Your task to perform on an android device: empty trash in the gmail app Image 0: 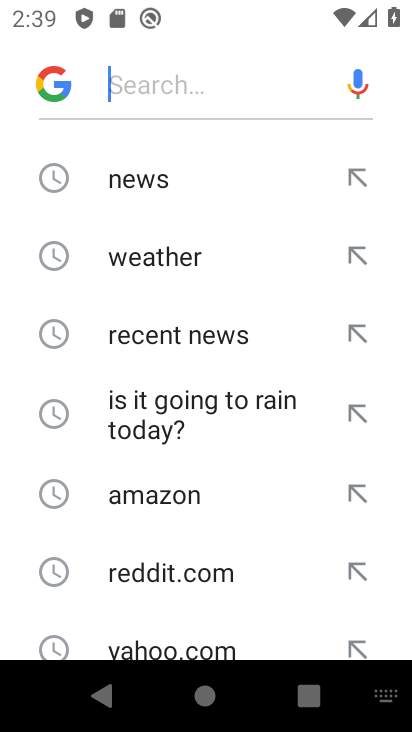
Step 0: press home button
Your task to perform on an android device: empty trash in the gmail app Image 1: 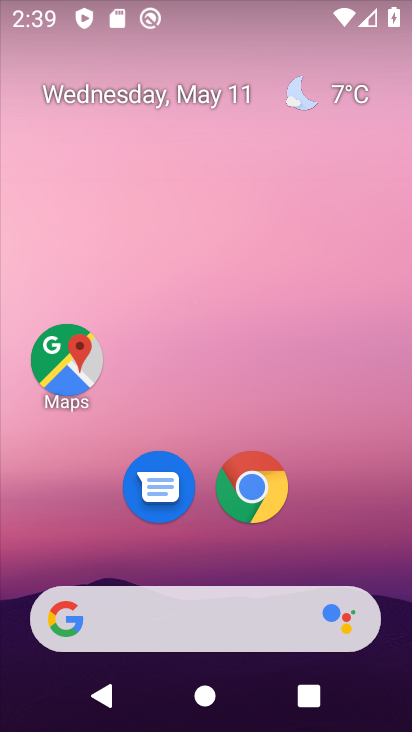
Step 1: drag from (275, 615) to (238, 74)
Your task to perform on an android device: empty trash in the gmail app Image 2: 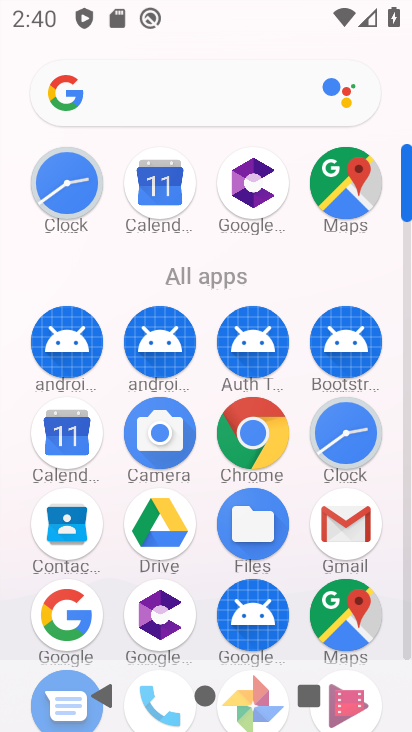
Step 2: click (349, 540)
Your task to perform on an android device: empty trash in the gmail app Image 3: 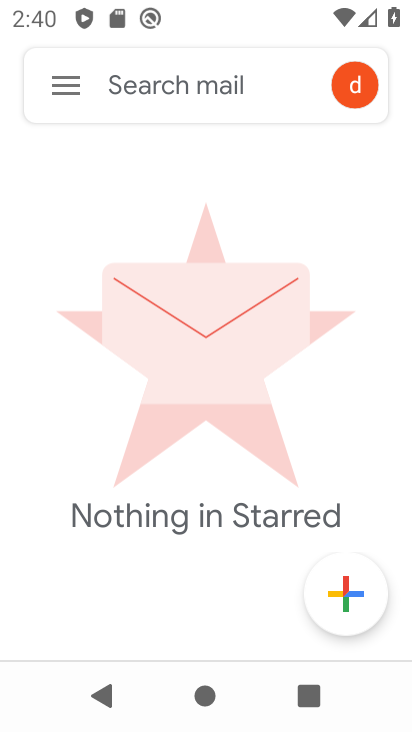
Step 3: click (74, 92)
Your task to perform on an android device: empty trash in the gmail app Image 4: 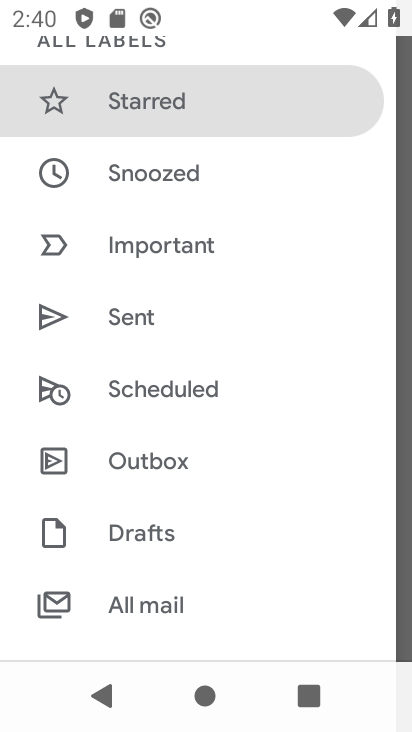
Step 4: drag from (169, 625) to (192, 249)
Your task to perform on an android device: empty trash in the gmail app Image 5: 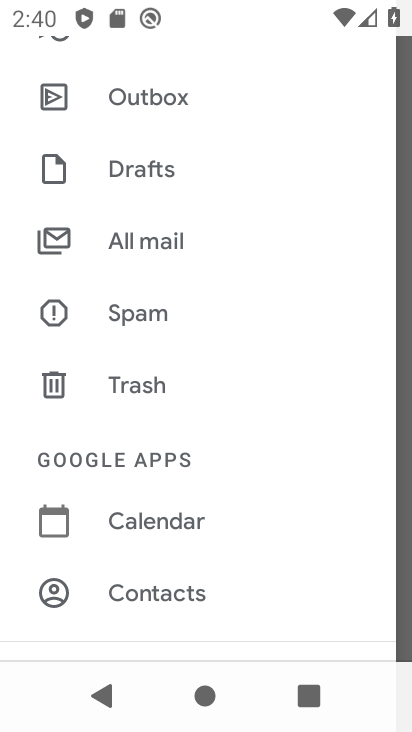
Step 5: click (147, 389)
Your task to perform on an android device: empty trash in the gmail app Image 6: 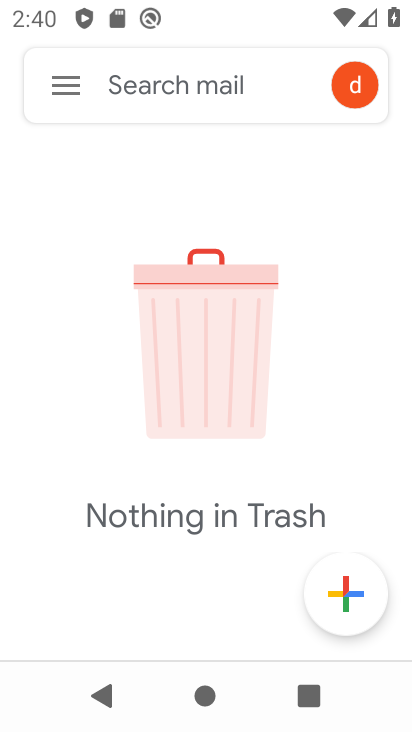
Step 6: task complete